Your task to perform on an android device: move a message to another label in the gmail app Image 0: 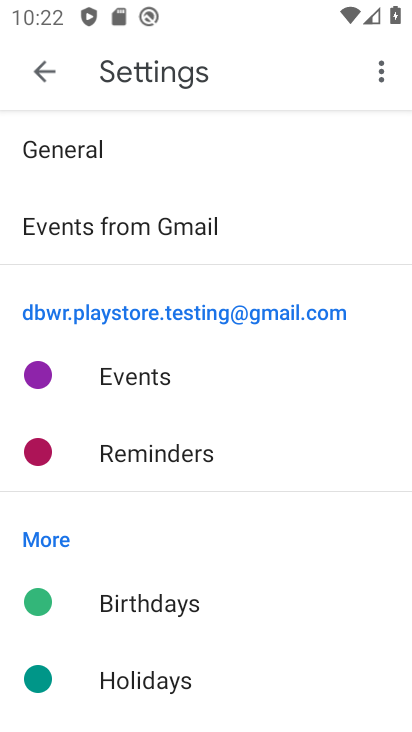
Step 0: press home button
Your task to perform on an android device: move a message to another label in the gmail app Image 1: 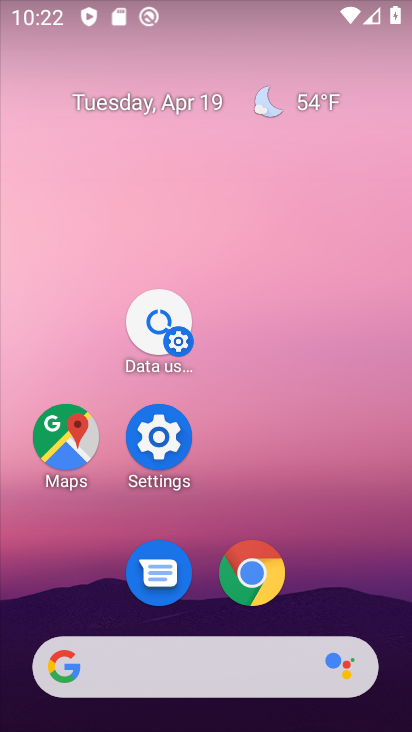
Step 1: drag from (391, 560) to (401, 27)
Your task to perform on an android device: move a message to another label in the gmail app Image 2: 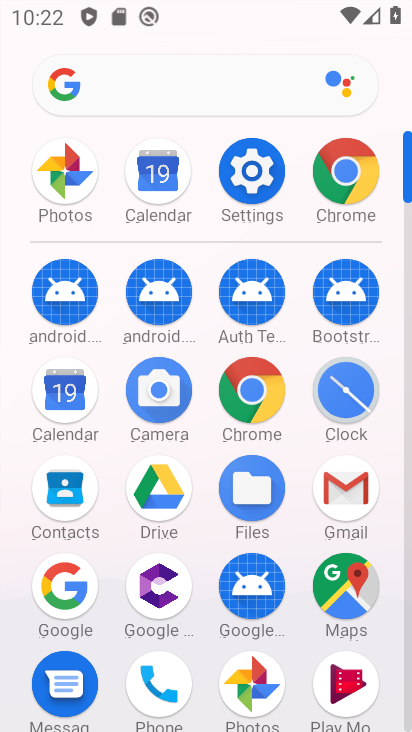
Step 2: click (337, 480)
Your task to perform on an android device: move a message to another label in the gmail app Image 3: 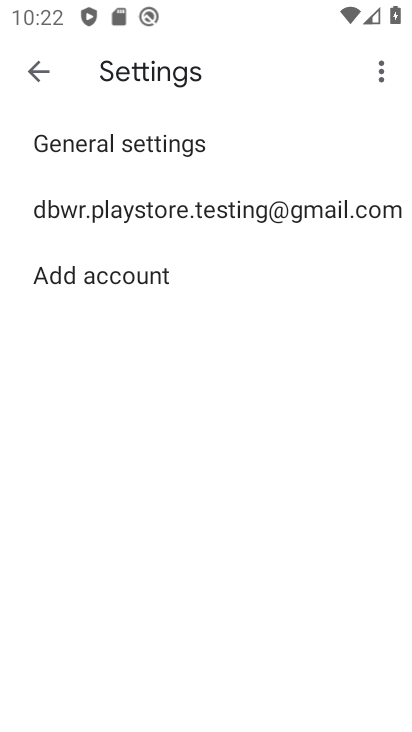
Step 3: click (49, 71)
Your task to perform on an android device: move a message to another label in the gmail app Image 4: 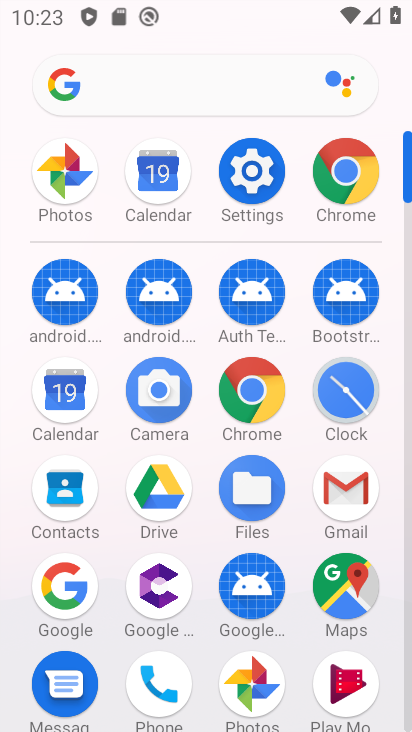
Step 4: click (355, 500)
Your task to perform on an android device: move a message to another label in the gmail app Image 5: 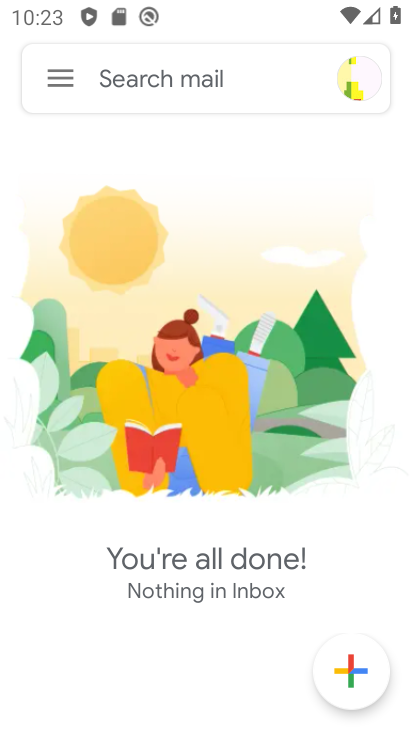
Step 5: click (64, 73)
Your task to perform on an android device: move a message to another label in the gmail app Image 6: 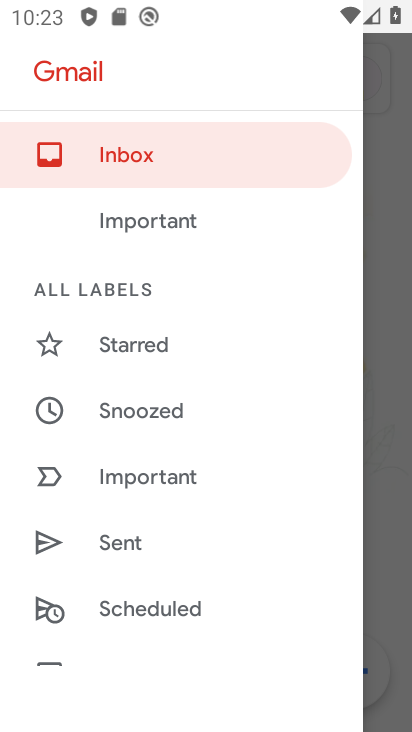
Step 6: drag from (252, 550) to (259, 6)
Your task to perform on an android device: move a message to another label in the gmail app Image 7: 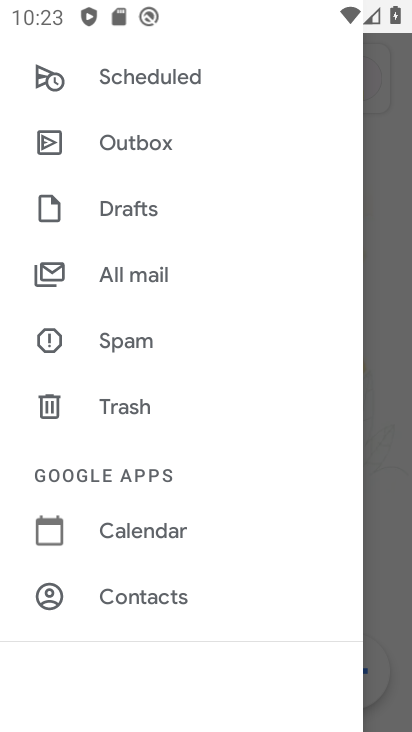
Step 7: click (125, 283)
Your task to perform on an android device: move a message to another label in the gmail app Image 8: 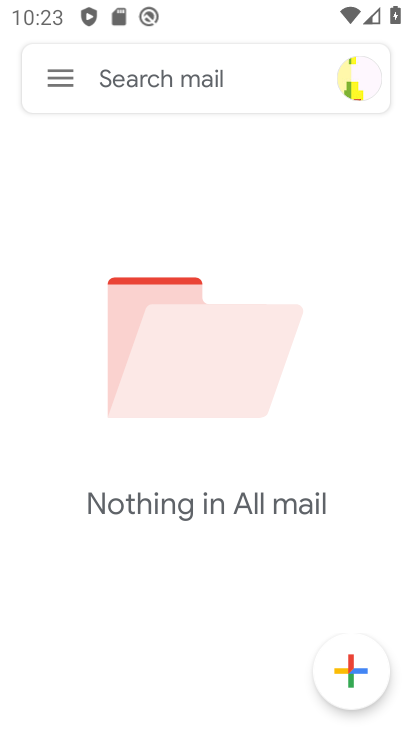
Step 8: task complete